Your task to perform on an android device: Go to battery settings Image 0: 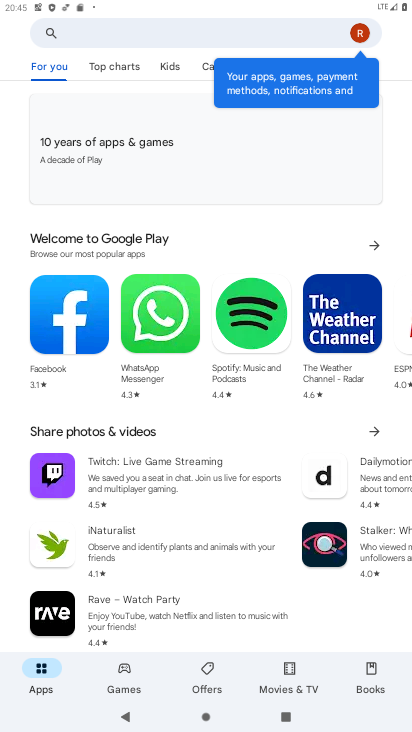
Step 0: press home button
Your task to perform on an android device: Go to battery settings Image 1: 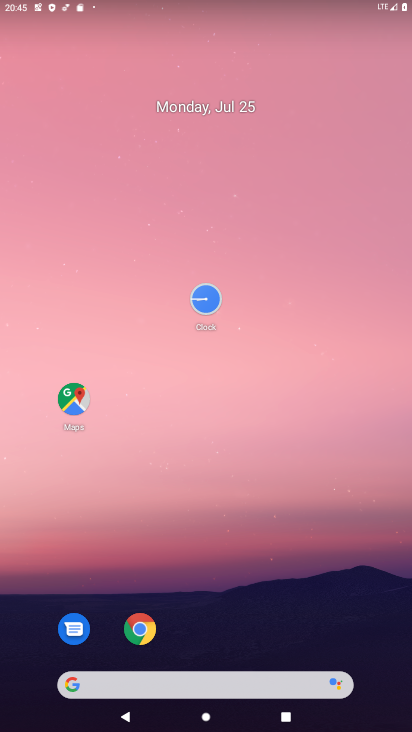
Step 1: drag from (225, 644) to (199, 4)
Your task to perform on an android device: Go to battery settings Image 2: 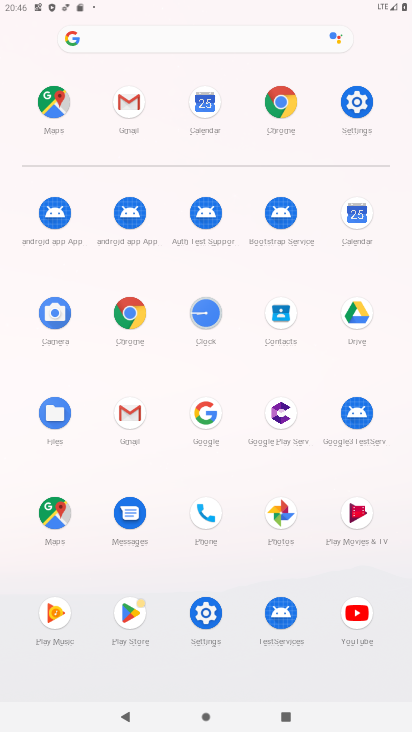
Step 2: click (209, 627)
Your task to perform on an android device: Go to battery settings Image 3: 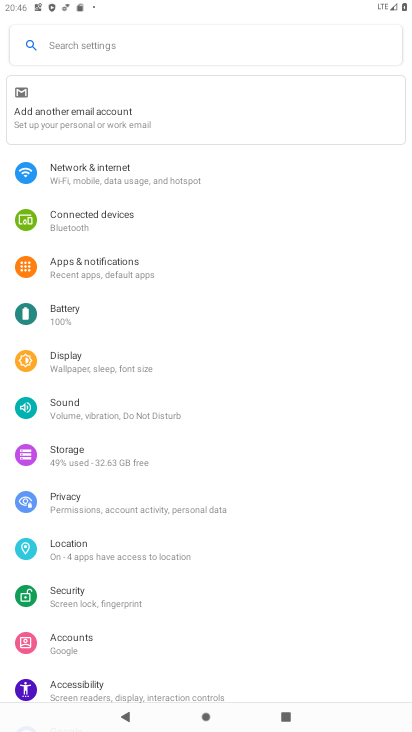
Step 3: click (86, 317)
Your task to perform on an android device: Go to battery settings Image 4: 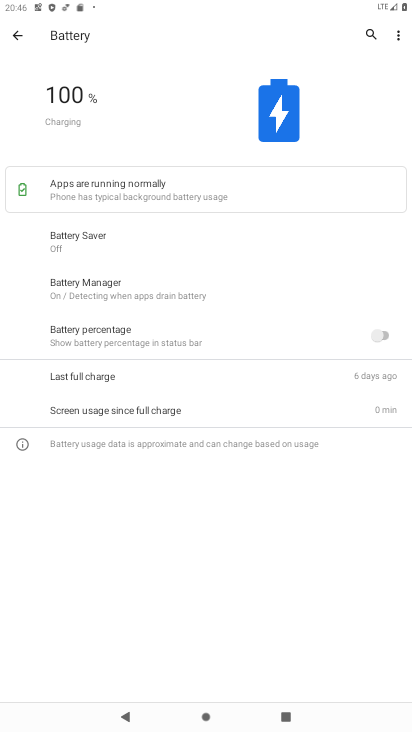
Step 4: task complete